Your task to perform on an android device: Go to privacy settings Image 0: 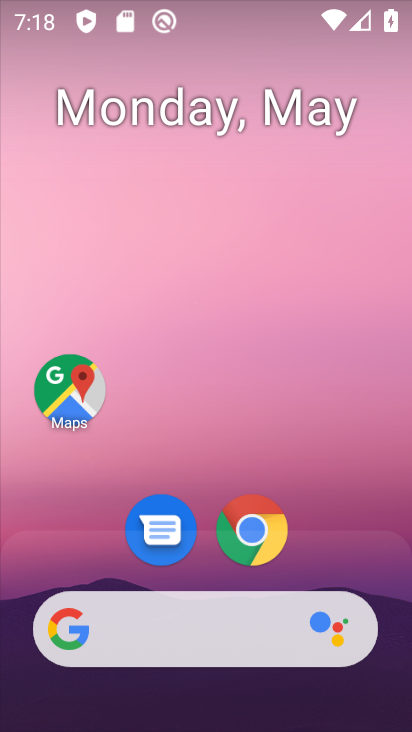
Step 0: drag from (205, 349) to (359, 87)
Your task to perform on an android device: Go to privacy settings Image 1: 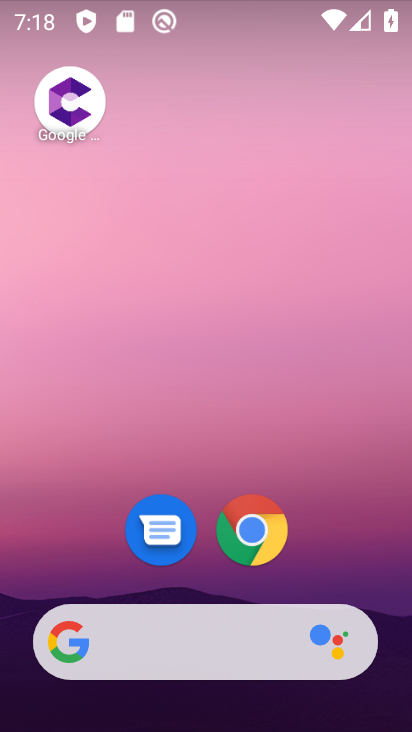
Step 1: drag from (64, 424) to (207, 82)
Your task to perform on an android device: Go to privacy settings Image 2: 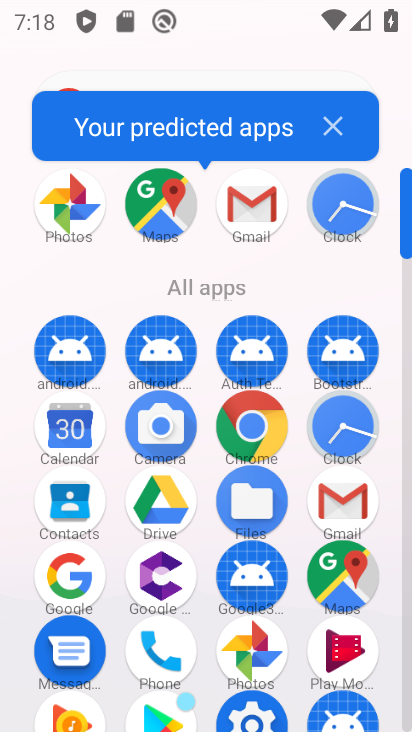
Step 2: click (237, 715)
Your task to perform on an android device: Go to privacy settings Image 3: 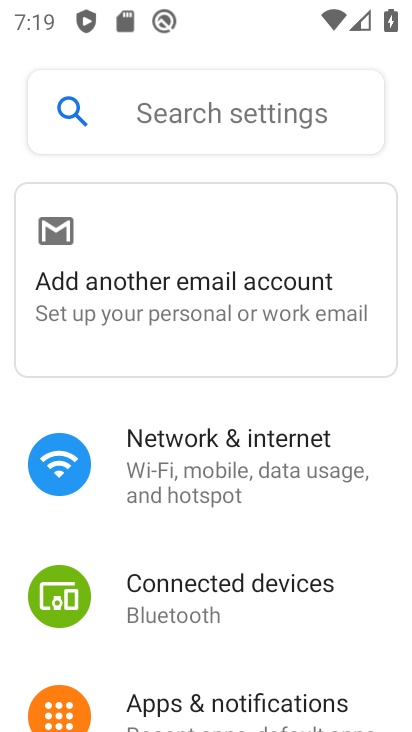
Step 3: drag from (31, 495) to (184, 130)
Your task to perform on an android device: Go to privacy settings Image 4: 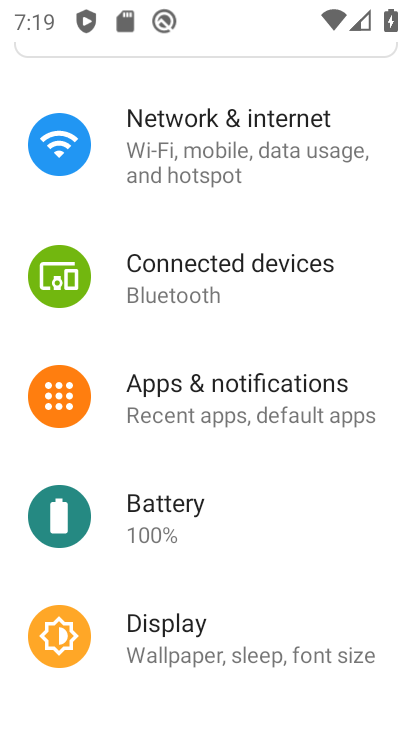
Step 4: drag from (11, 626) to (265, 159)
Your task to perform on an android device: Go to privacy settings Image 5: 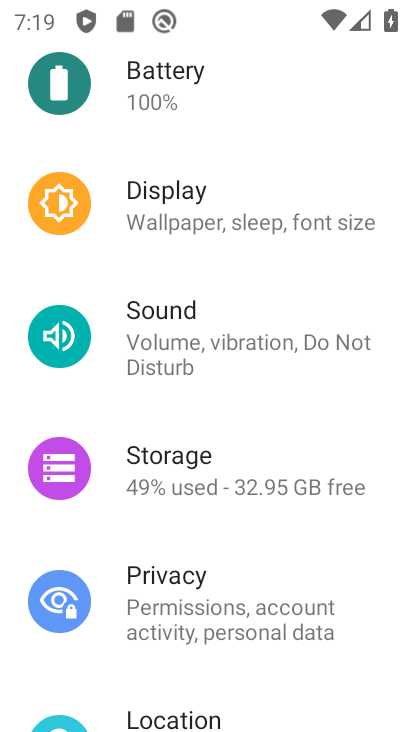
Step 5: click (122, 623)
Your task to perform on an android device: Go to privacy settings Image 6: 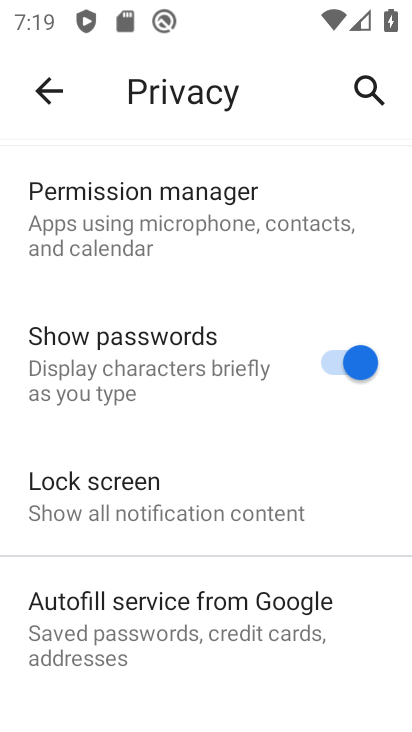
Step 6: task complete